Your task to perform on an android device: move a message to another label in the gmail app Image 0: 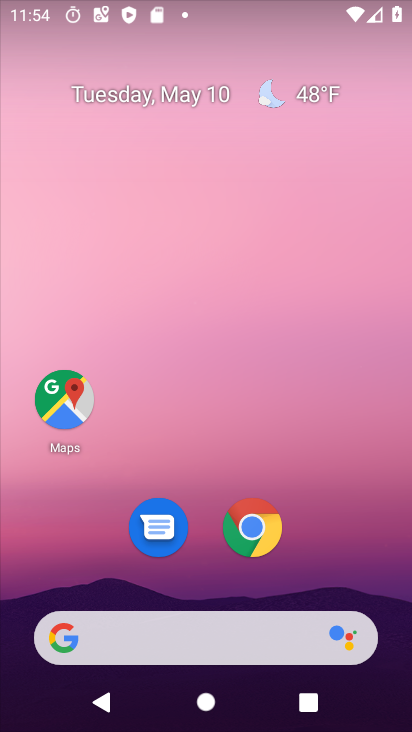
Step 0: drag from (214, 727) to (249, 187)
Your task to perform on an android device: move a message to another label in the gmail app Image 1: 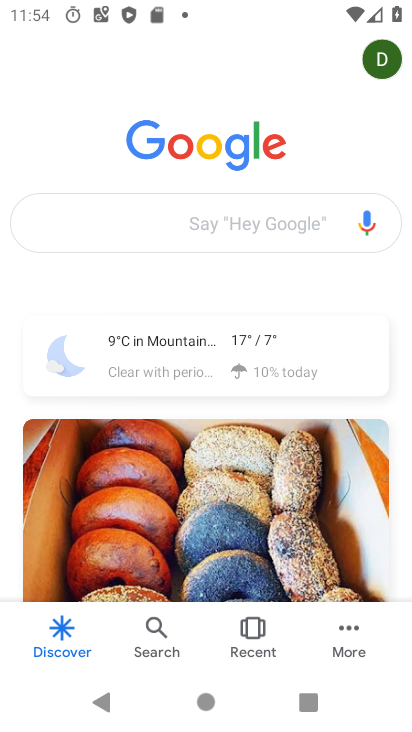
Step 1: press home button
Your task to perform on an android device: move a message to another label in the gmail app Image 2: 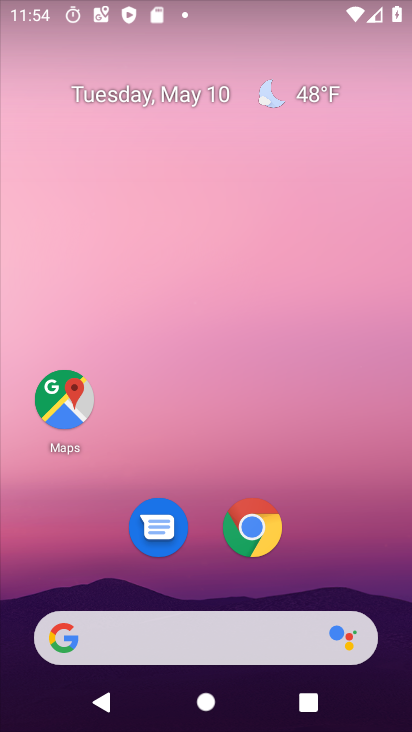
Step 2: drag from (234, 716) to (239, 109)
Your task to perform on an android device: move a message to another label in the gmail app Image 3: 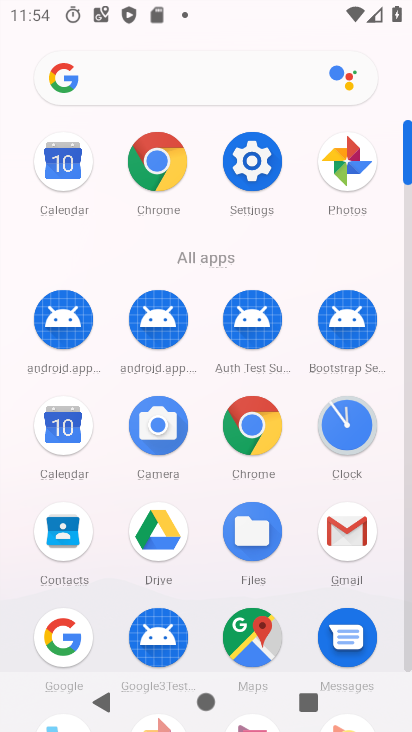
Step 3: click (356, 535)
Your task to perform on an android device: move a message to another label in the gmail app Image 4: 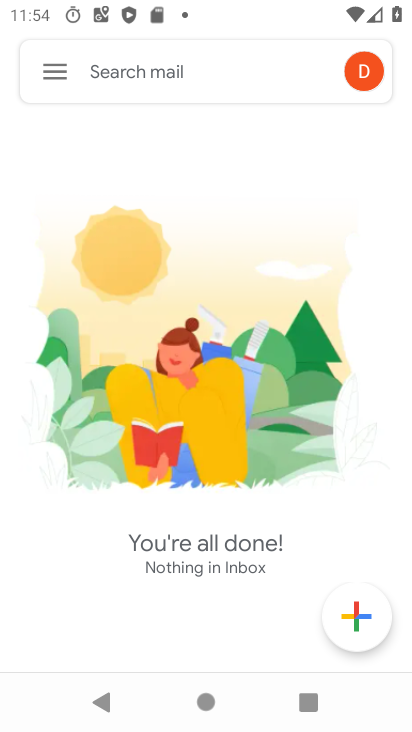
Step 4: task complete